Your task to perform on an android device: change the upload size in google photos Image 0: 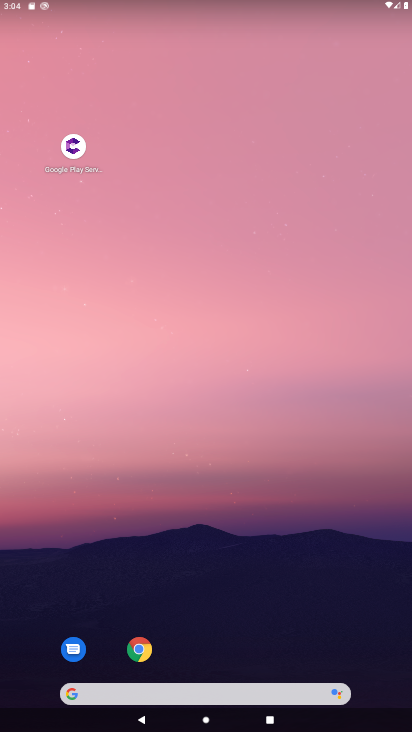
Step 0: press home button
Your task to perform on an android device: change the upload size in google photos Image 1: 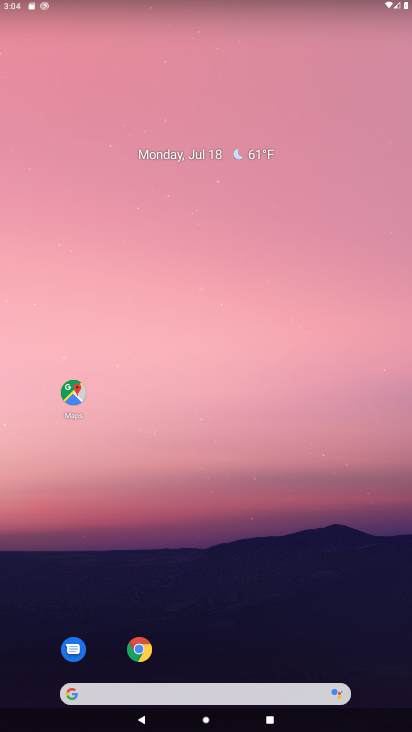
Step 1: drag from (280, 628) to (253, 117)
Your task to perform on an android device: change the upload size in google photos Image 2: 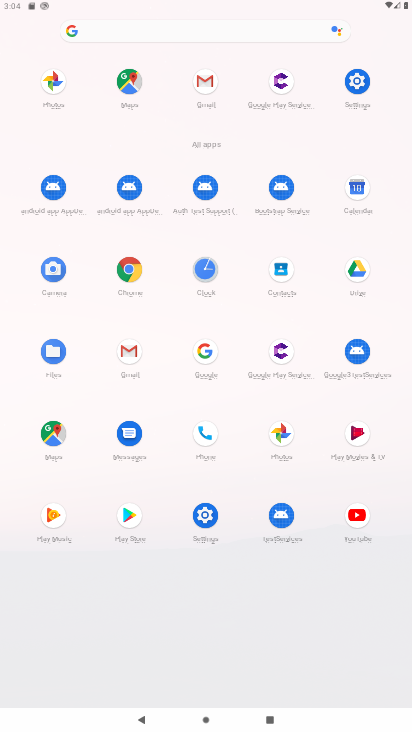
Step 2: click (62, 80)
Your task to perform on an android device: change the upload size in google photos Image 3: 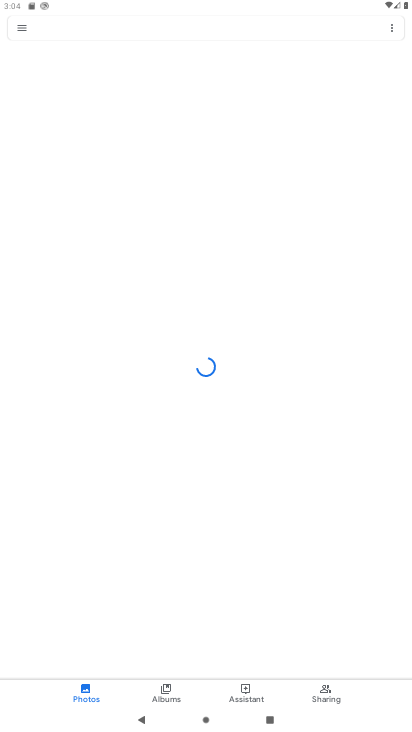
Step 3: click (27, 31)
Your task to perform on an android device: change the upload size in google photos Image 4: 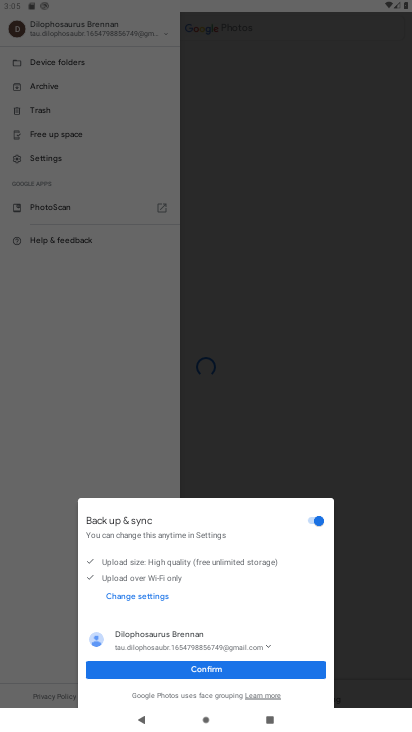
Step 4: click (214, 670)
Your task to perform on an android device: change the upload size in google photos Image 5: 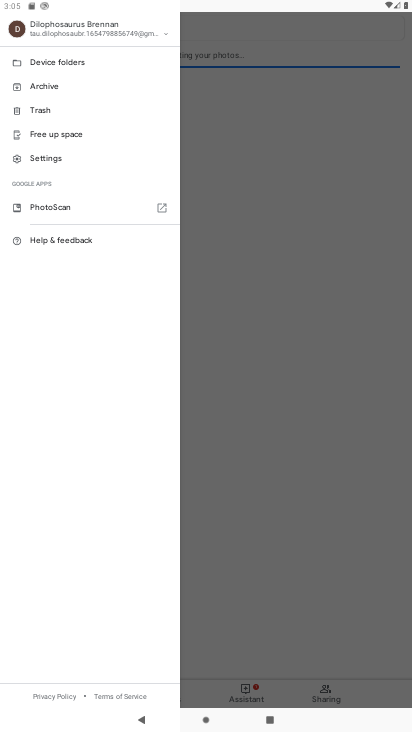
Step 5: click (67, 153)
Your task to perform on an android device: change the upload size in google photos Image 6: 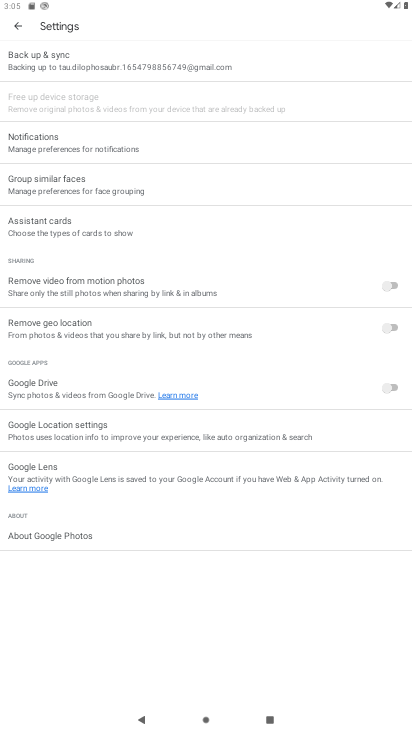
Step 6: click (106, 63)
Your task to perform on an android device: change the upload size in google photos Image 7: 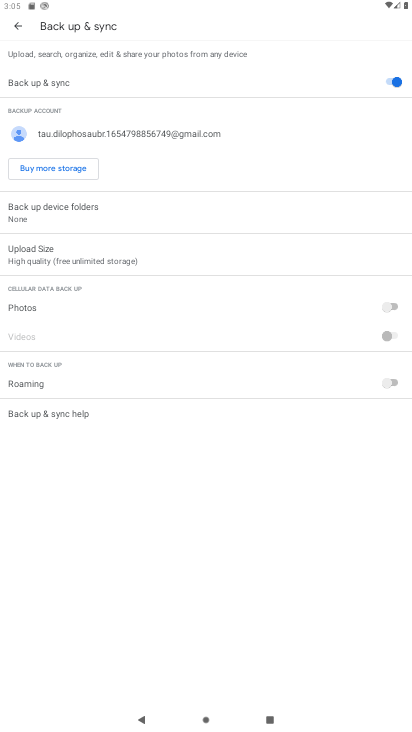
Step 7: click (49, 256)
Your task to perform on an android device: change the upload size in google photos Image 8: 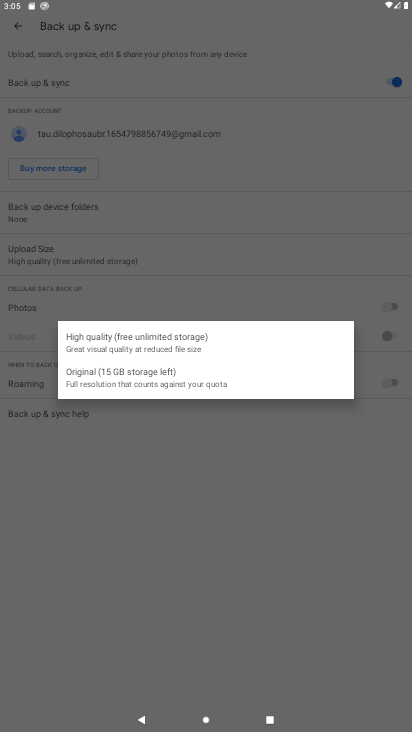
Step 8: click (105, 370)
Your task to perform on an android device: change the upload size in google photos Image 9: 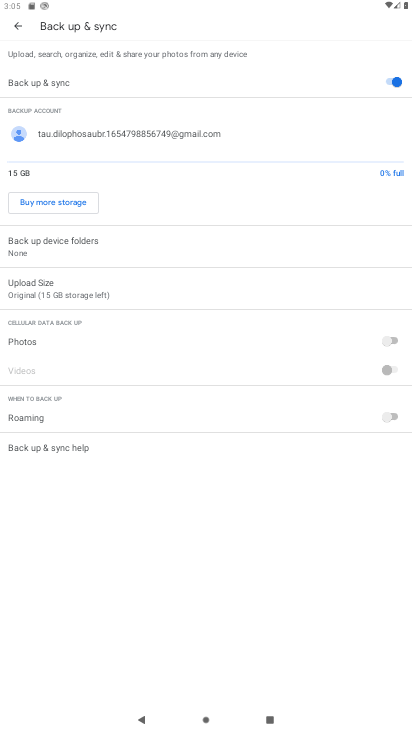
Step 9: task complete